Your task to perform on an android device: uninstall "Skype" Image 0: 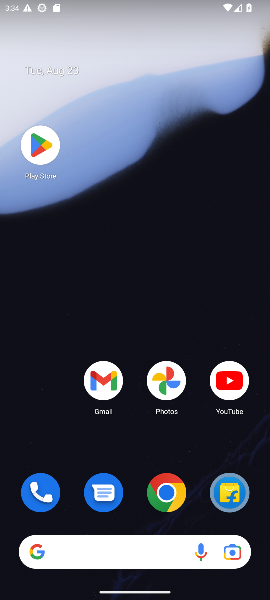
Step 0: click (36, 158)
Your task to perform on an android device: uninstall "Skype" Image 1: 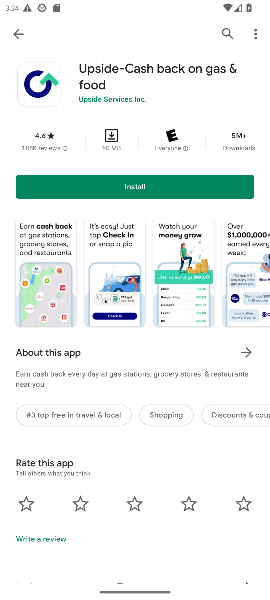
Step 1: click (238, 35)
Your task to perform on an android device: uninstall "Skype" Image 2: 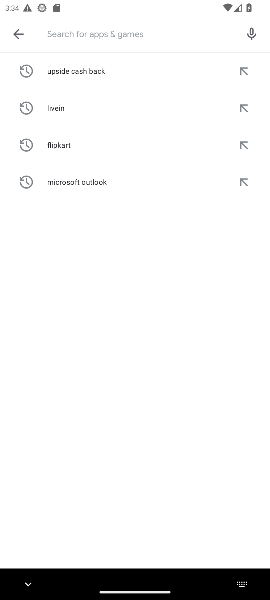
Step 2: type "skype"
Your task to perform on an android device: uninstall "Skype" Image 3: 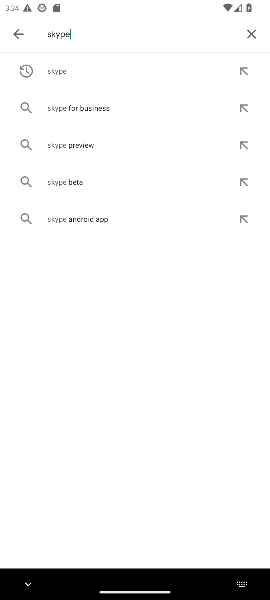
Step 3: click (105, 67)
Your task to perform on an android device: uninstall "Skype" Image 4: 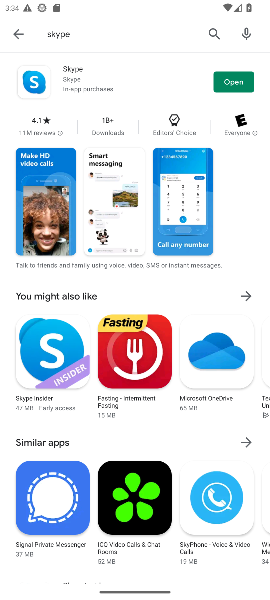
Step 4: click (222, 81)
Your task to perform on an android device: uninstall "Skype" Image 5: 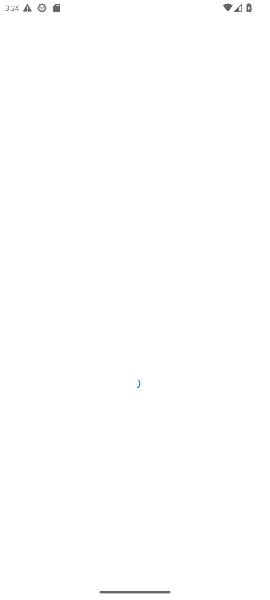
Step 5: task complete